Your task to perform on an android device: Clear the cart on amazon.com. Image 0: 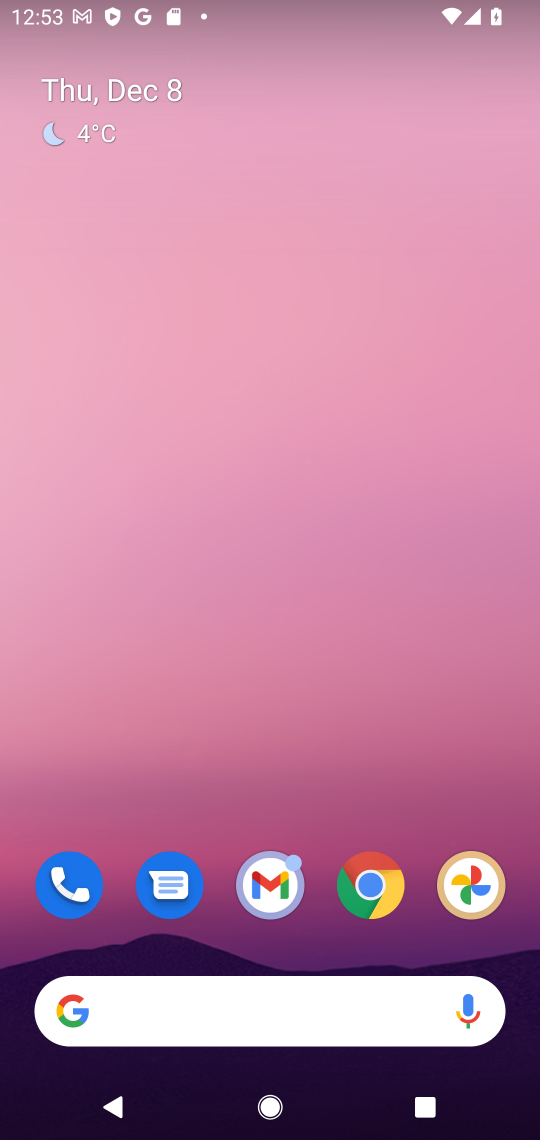
Step 0: click (366, 875)
Your task to perform on an android device: Clear the cart on amazon.com. Image 1: 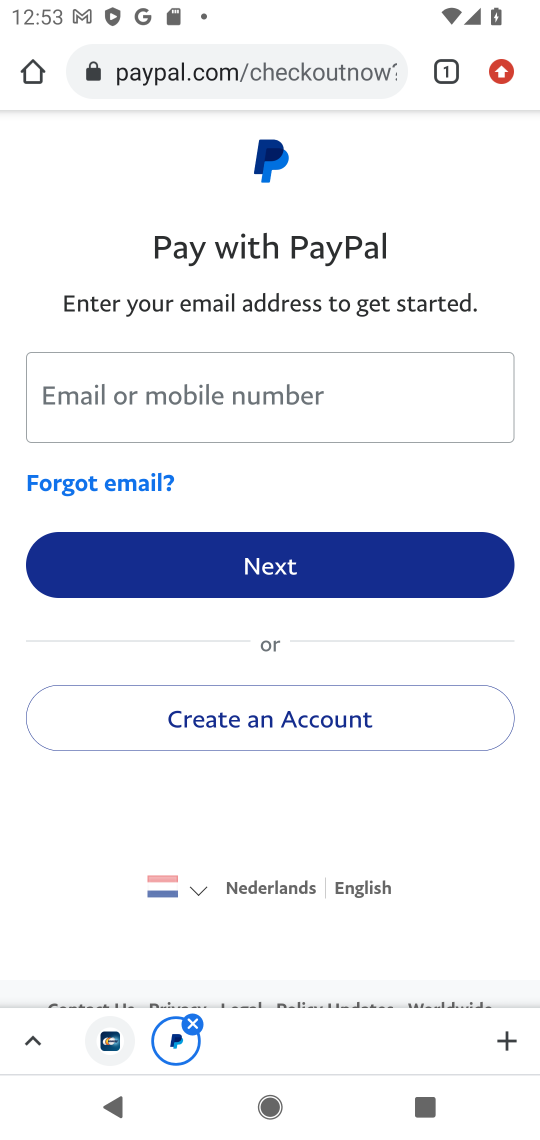
Step 1: click (296, 85)
Your task to perform on an android device: Clear the cart on amazon.com. Image 2: 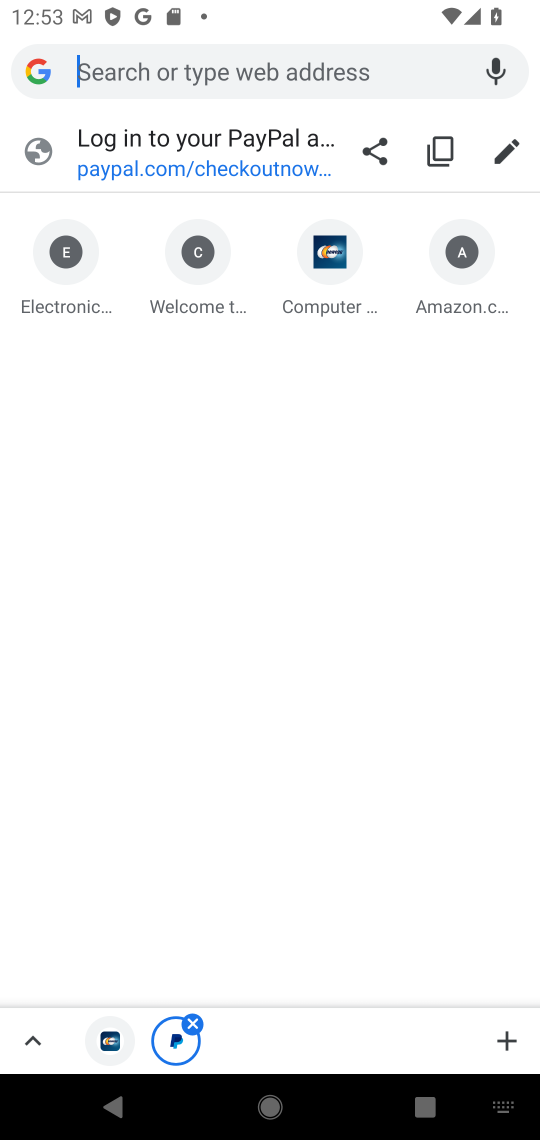
Step 2: type "AMAZON"
Your task to perform on an android device: Clear the cart on amazon.com. Image 3: 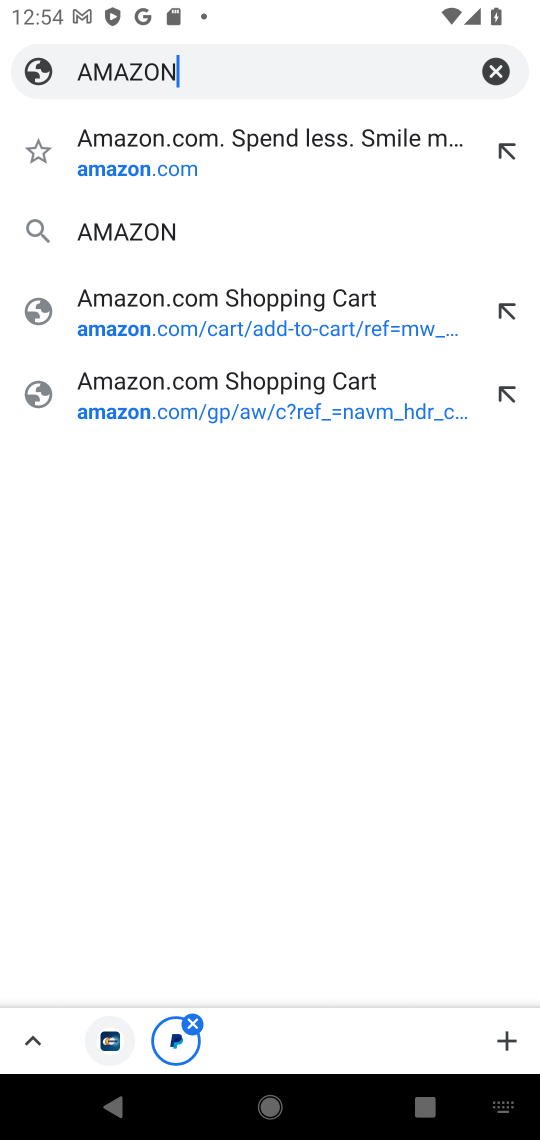
Step 3: click (138, 153)
Your task to perform on an android device: Clear the cart on amazon.com. Image 4: 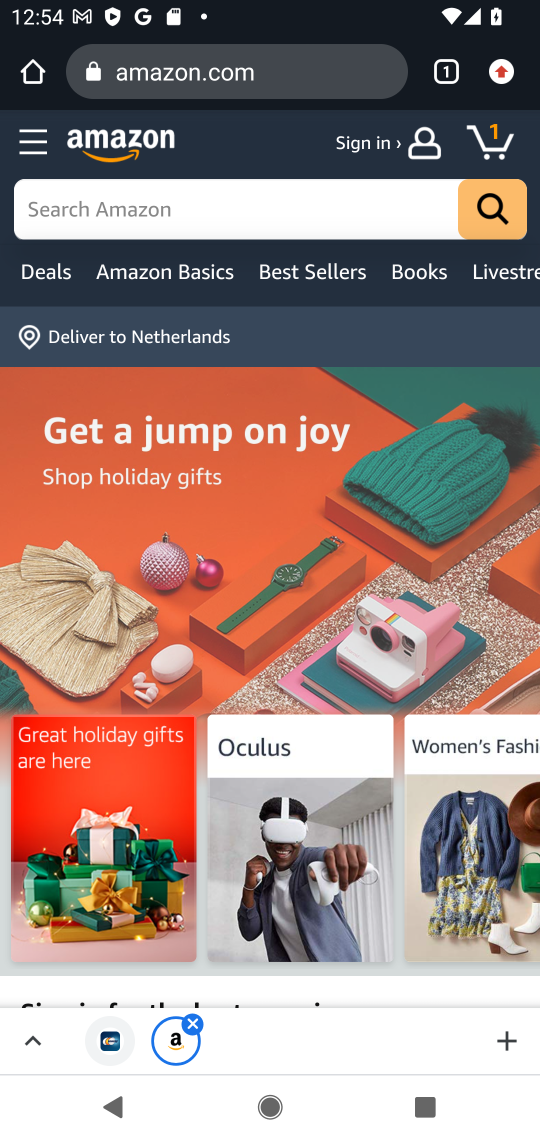
Step 4: click (484, 141)
Your task to perform on an android device: Clear the cart on amazon.com. Image 5: 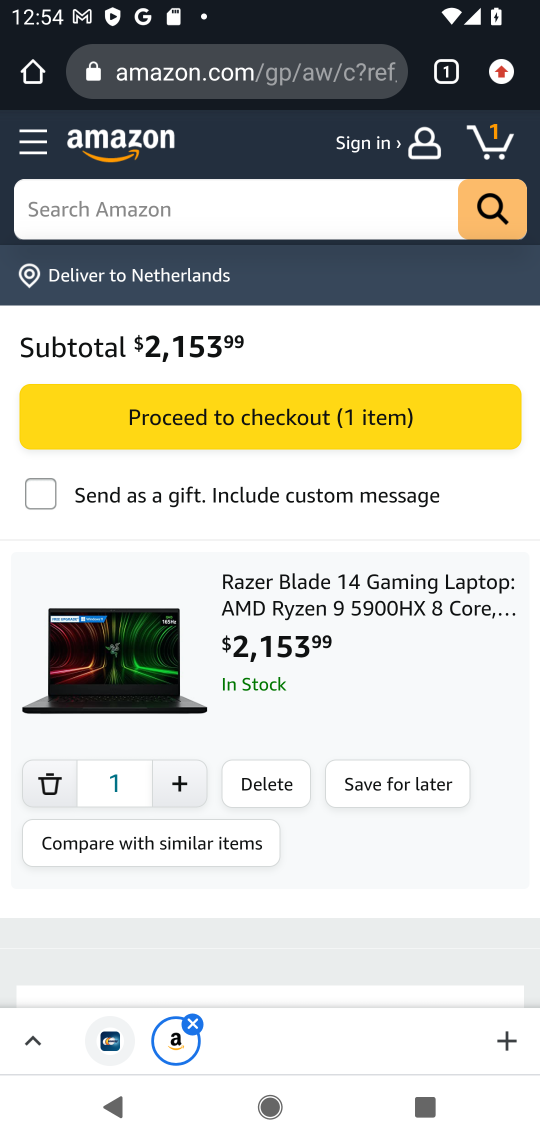
Step 5: click (279, 785)
Your task to perform on an android device: Clear the cart on amazon.com. Image 6: 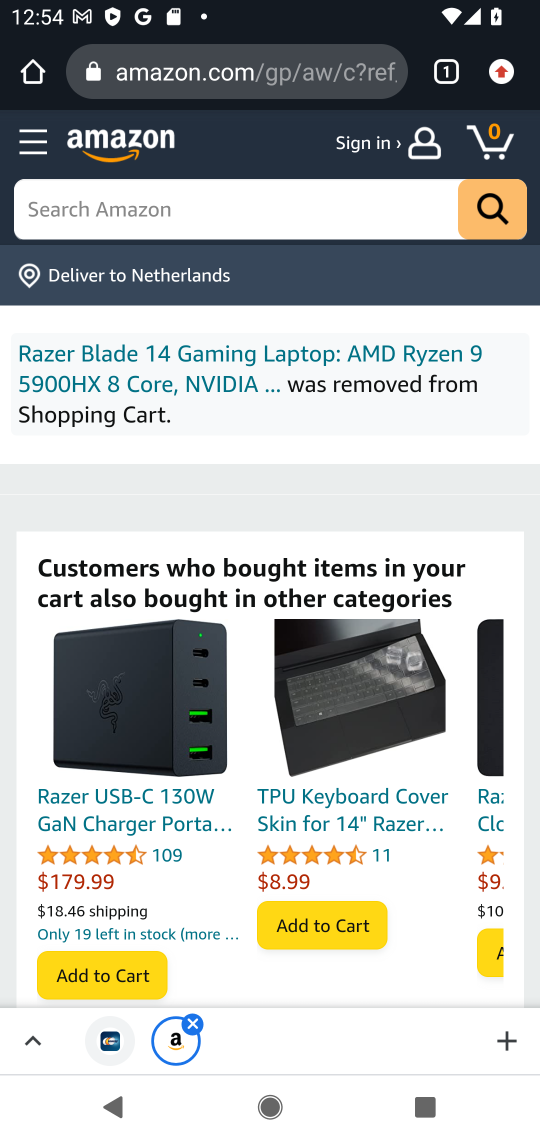
Step 6: task complete